Your task to perform on an android device: show emergency info Image 0: 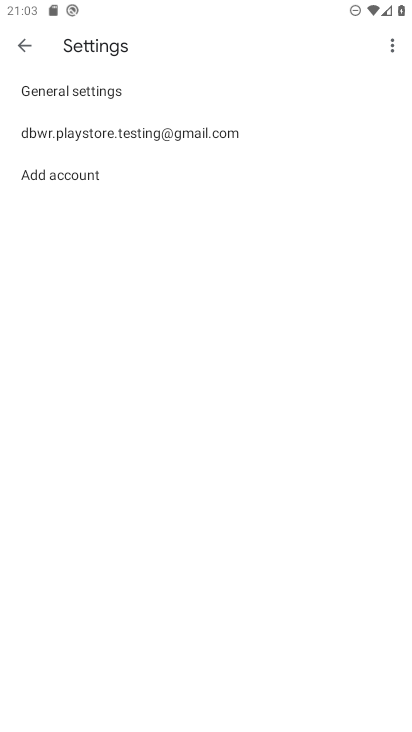
Step 0: press home button
Your task to perform on an android device: show emergency info Image 1: 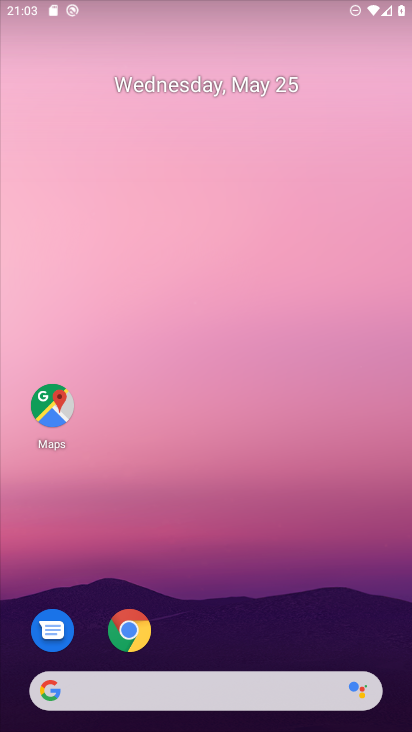
Step 1: drag from (218, 598) to (237, 56)
Your task to perform on an android device: show emergency info Image 2: 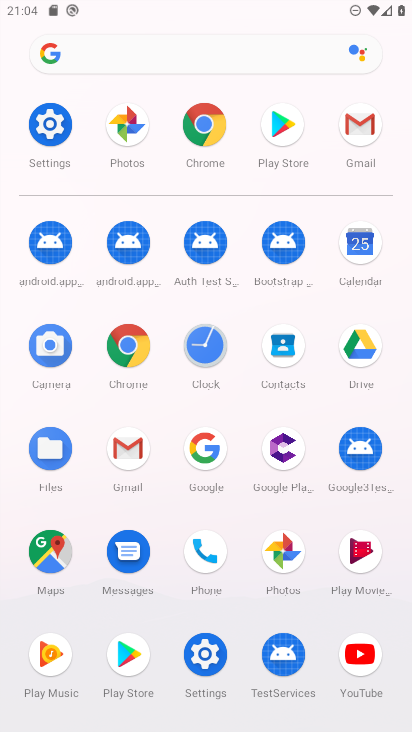
Step 2: click (45, 111)
Your task to perform on an android device: show emergency info Image 3: 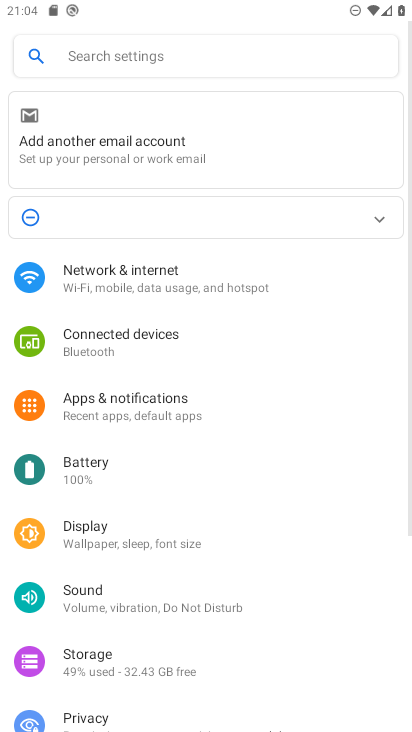
Step 3: drag from (209, 598) to (242, 91)
Your task to perform on an android device: show emergency info Image 4: 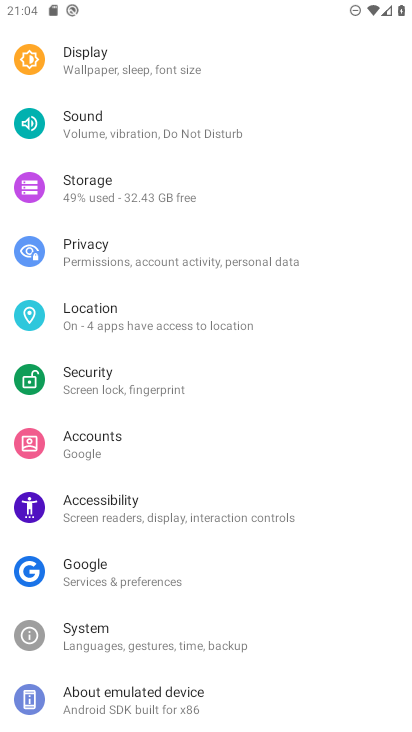
Step 4: drag from (169, 646) to (143, 346)
Your task to perform on an android device: show emergency info Image 5: 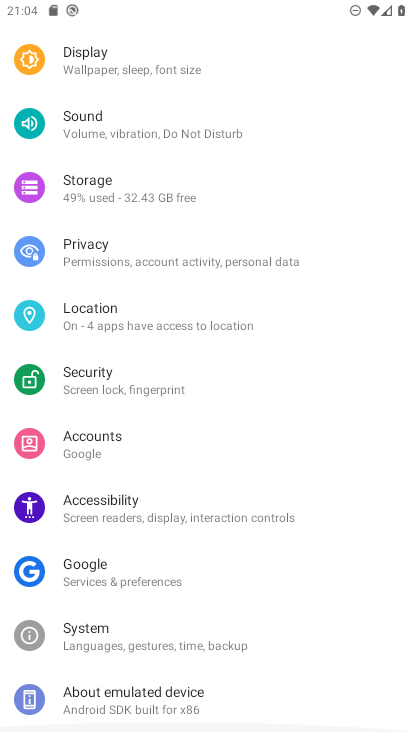
Step 5: click (152, 692)
Your task to perform on an android device: show emergency info Image 6: 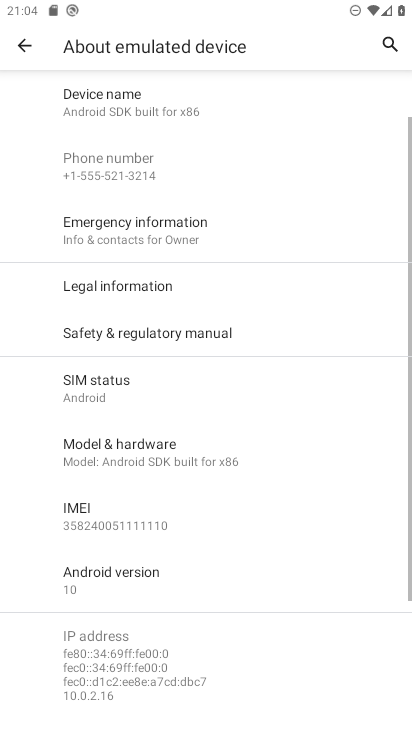
Step 6: click (154, 227)
Your task to perform on an android device: show emergency info Image 7: 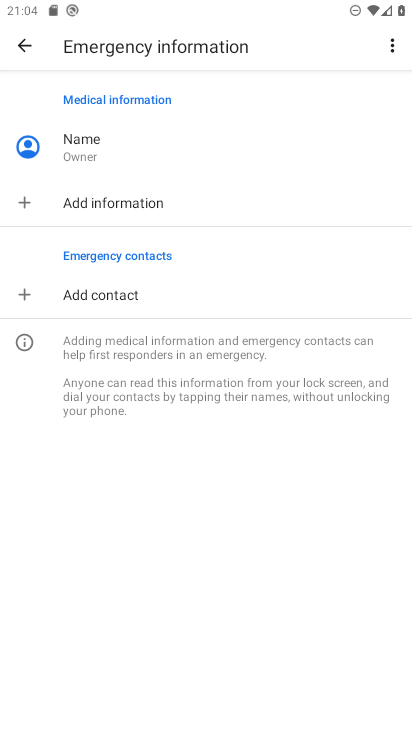
Step 7: task complete